Your task to perform on an android device: check out phone information Image 0: 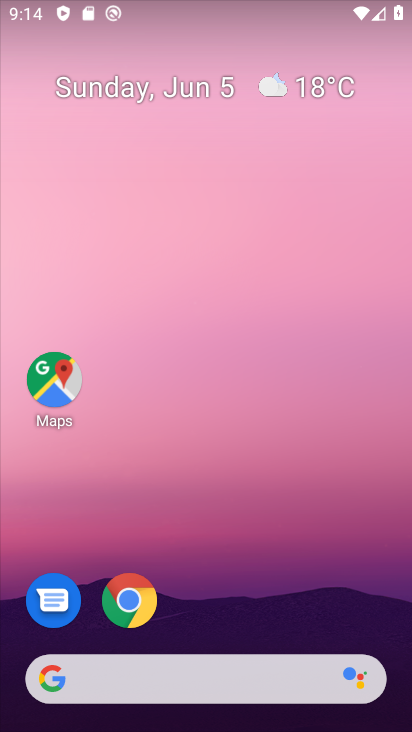
Step 0: drag from (281, 547) to (269, 116)
Your task to perform on an android device: check out phone information Image 1: 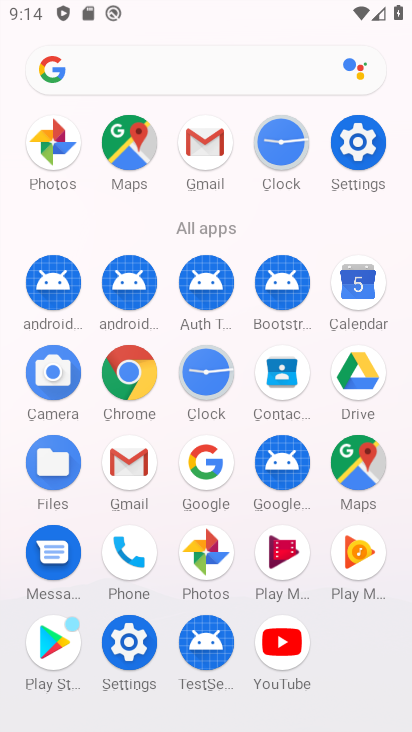
Step 1: click (127, 555)
Your task to perform on an android device: check out phone information Image 2: 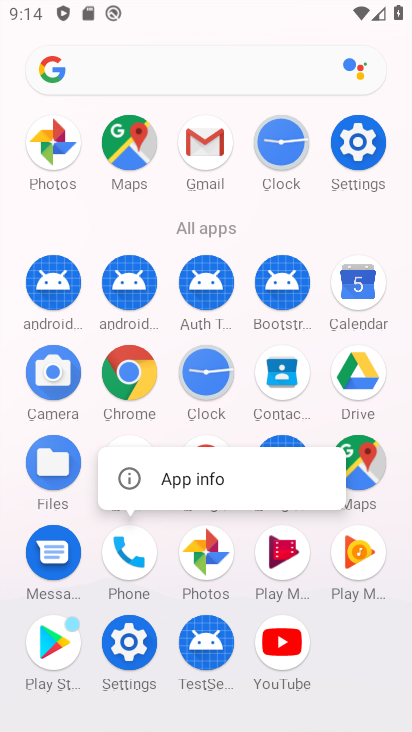
Step 2: click (202, 475)
Your task to perform on an android device: check out phone information Image 3: 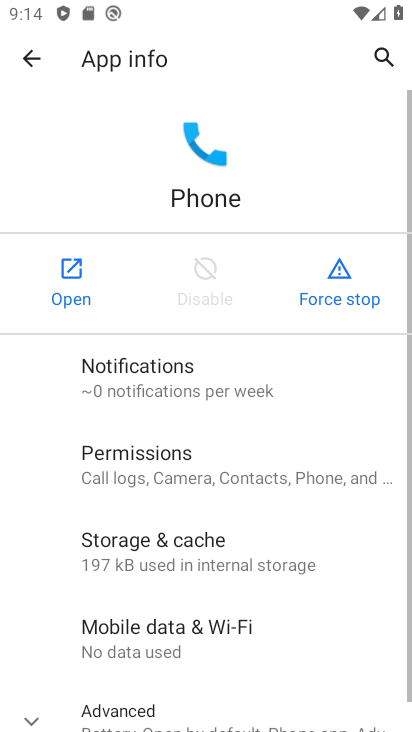
Step 3: task complete